Your task to perform on an android device: turn notification dots off Image 0: 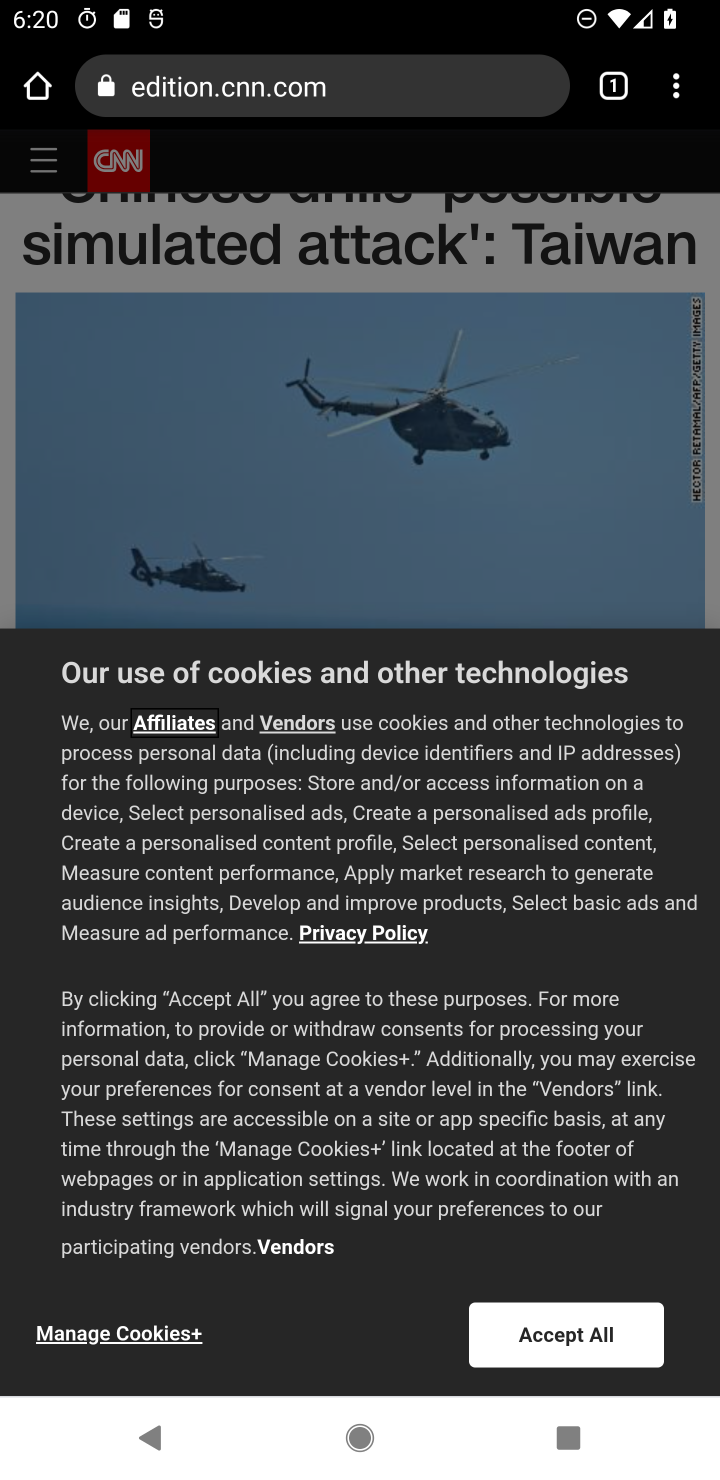
Step 0: press home button
Your task to perform on an android device: turn notification dots off Image 1: 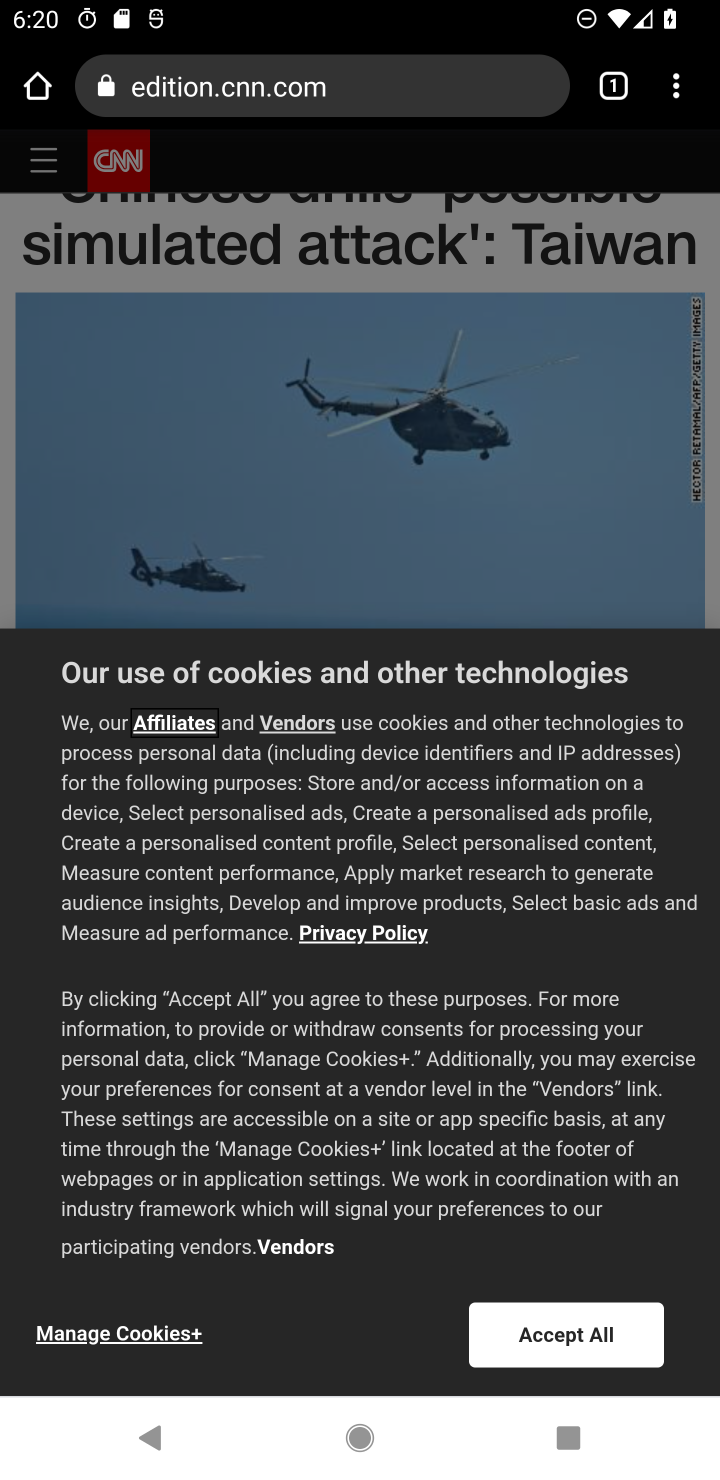
Step 1: drag from (352, 820) to (388, 308)
Your task to perform on an android device: turn notification dots off Image 2: 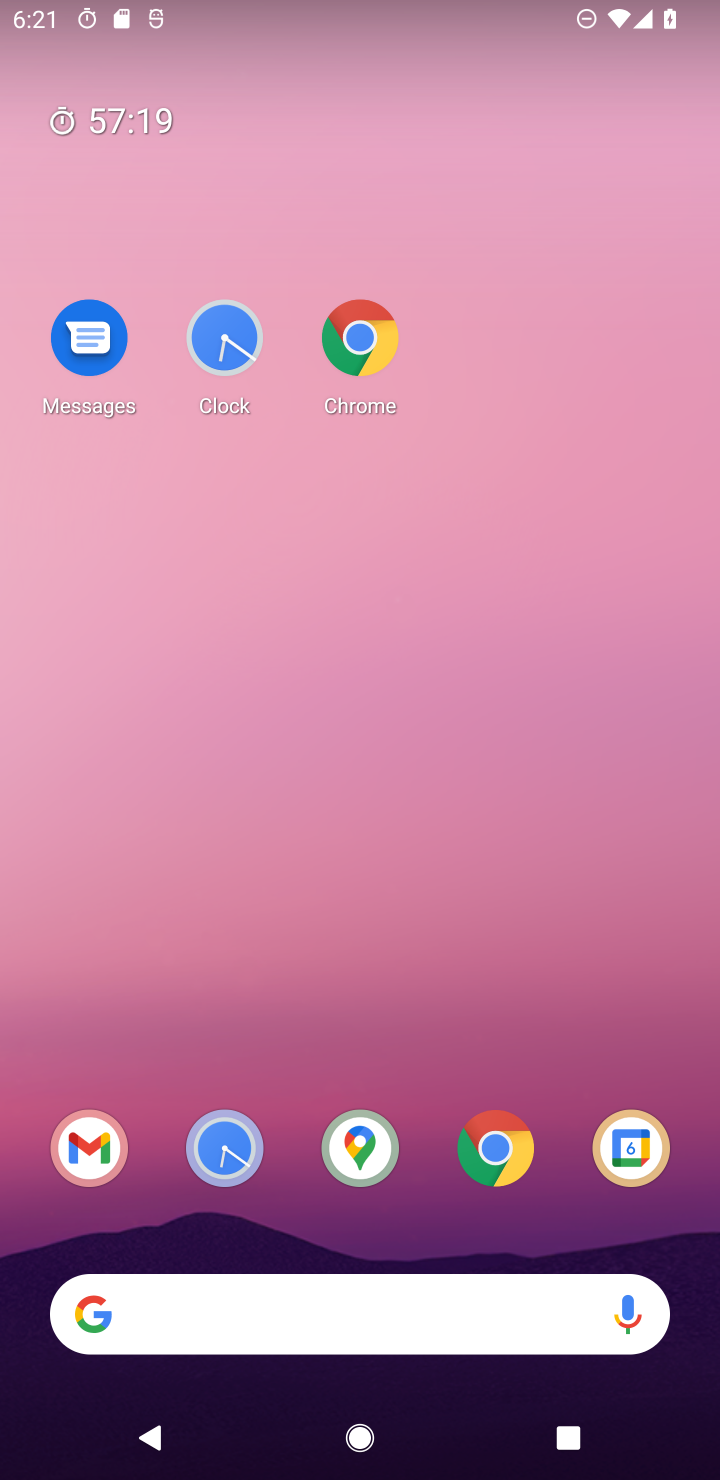
Step 2: drag from (416, 1137) to (504, 170)
Your task to perform on an android device: turn notification dots off Image 3: 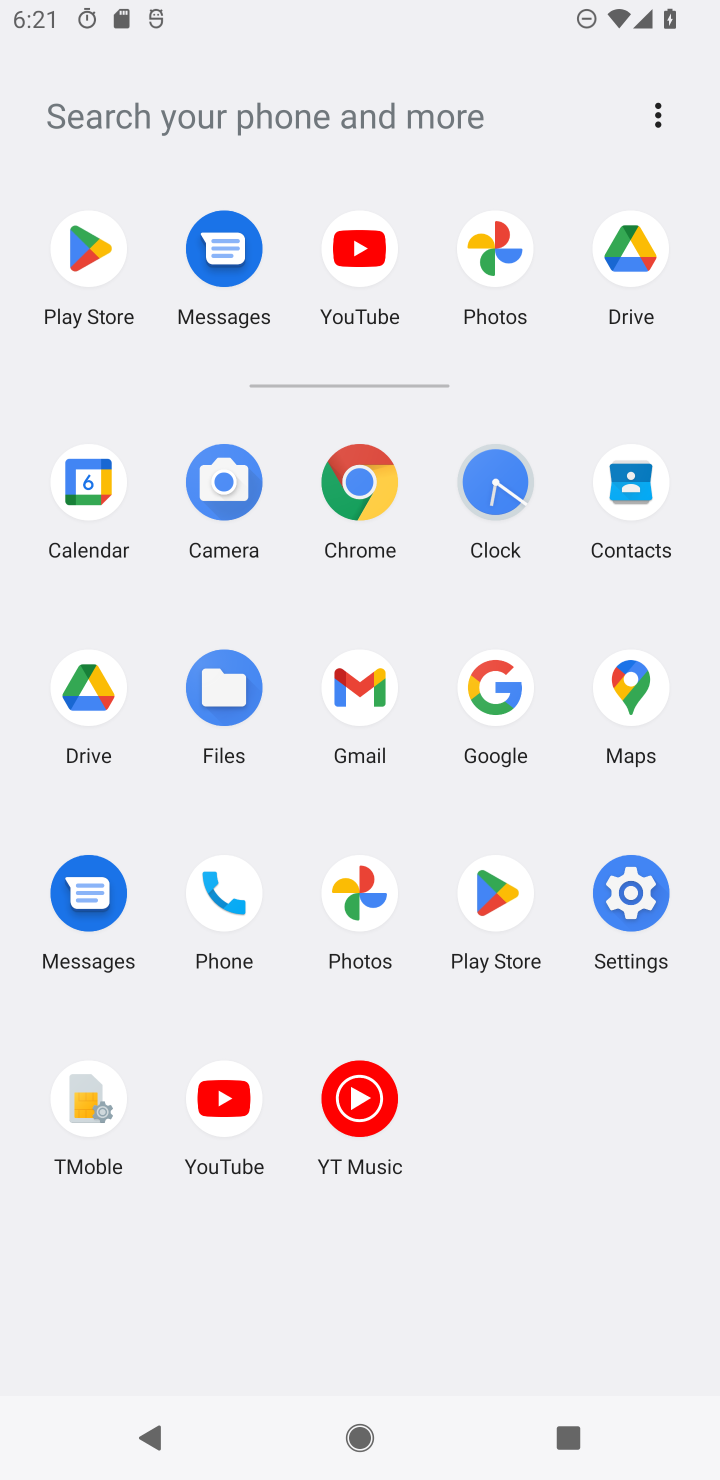
Step 3: click (348, 466)
Your task to perform on an android device: turn notification dots off Image 4: 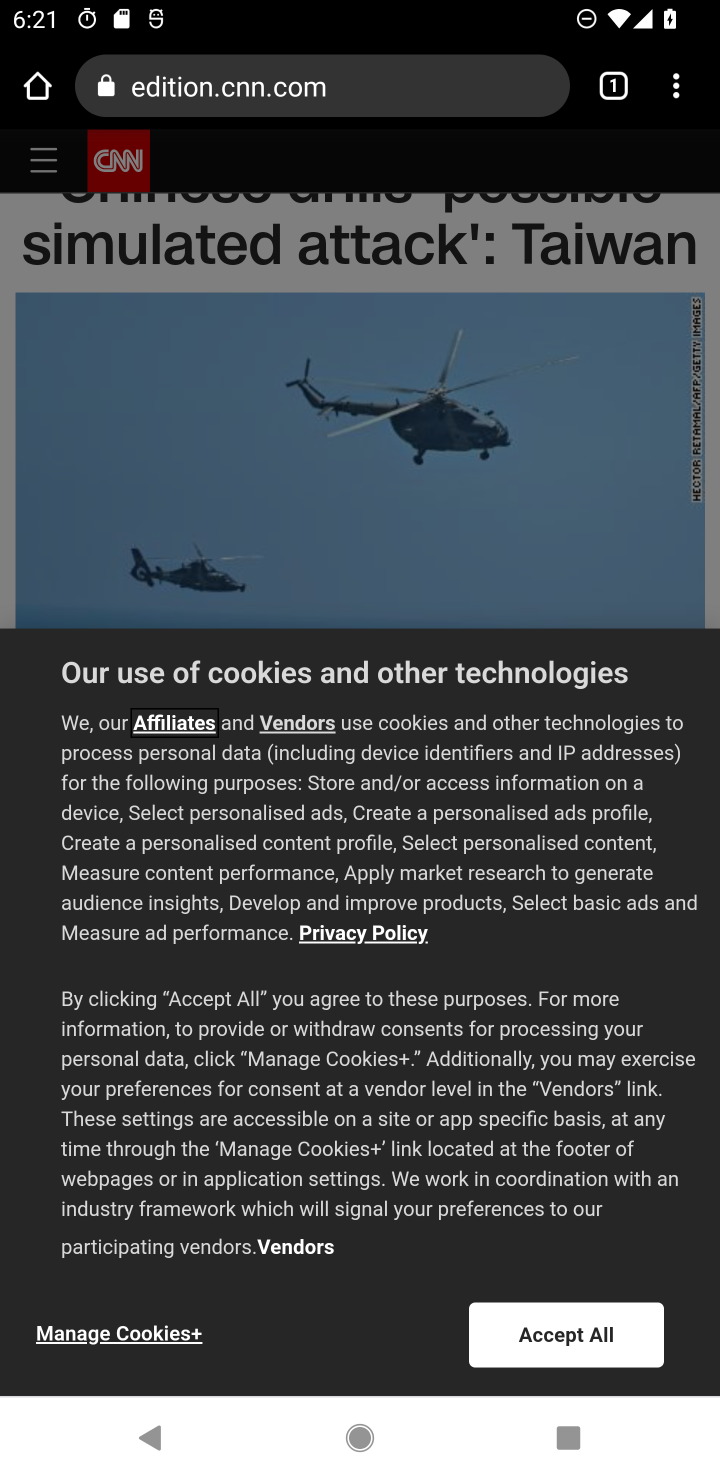
Step 4: drag from (310, 1122) to (446, 602)
Your task to perform on an android device: turn notification dots off Image 5: 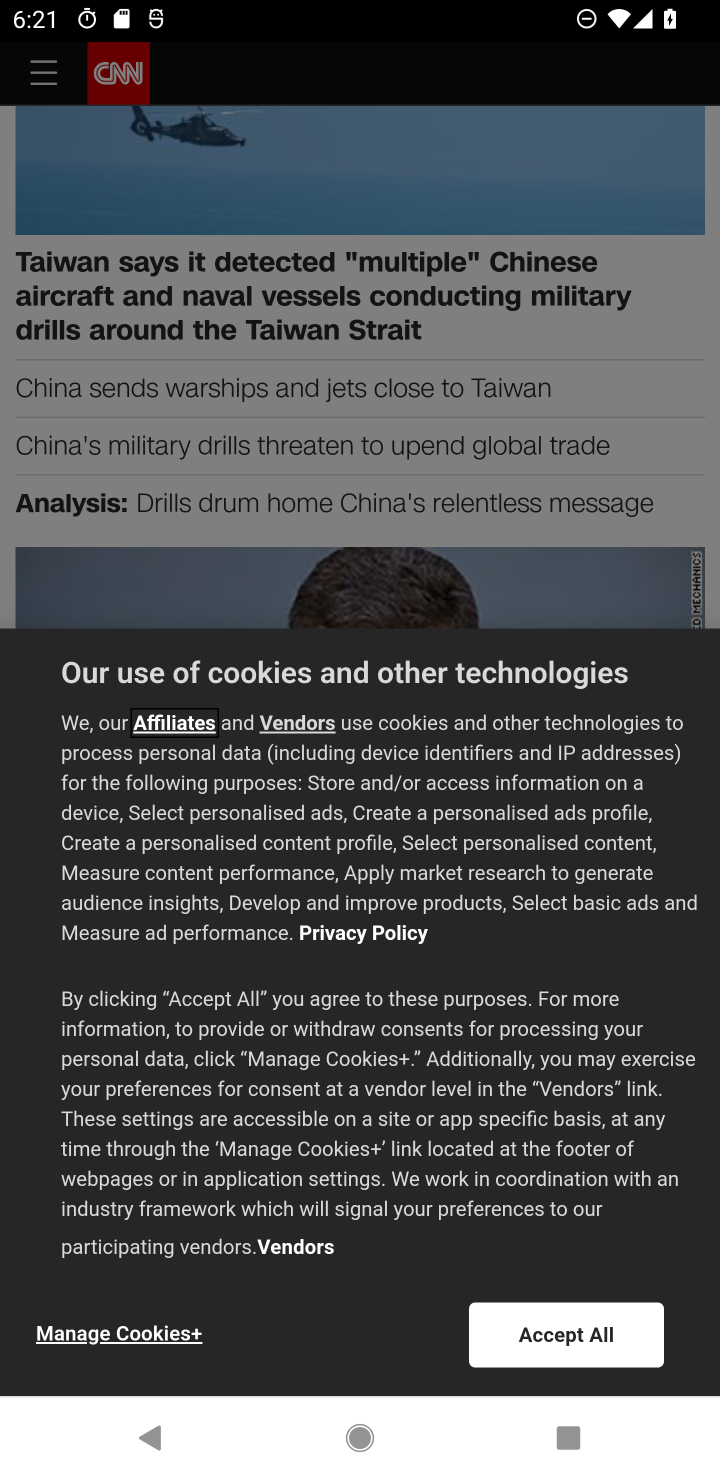
Step 5: drag from (424, 1089) to (450, 918)
Your task to perform on an android device: turn notification dots off Image 6: 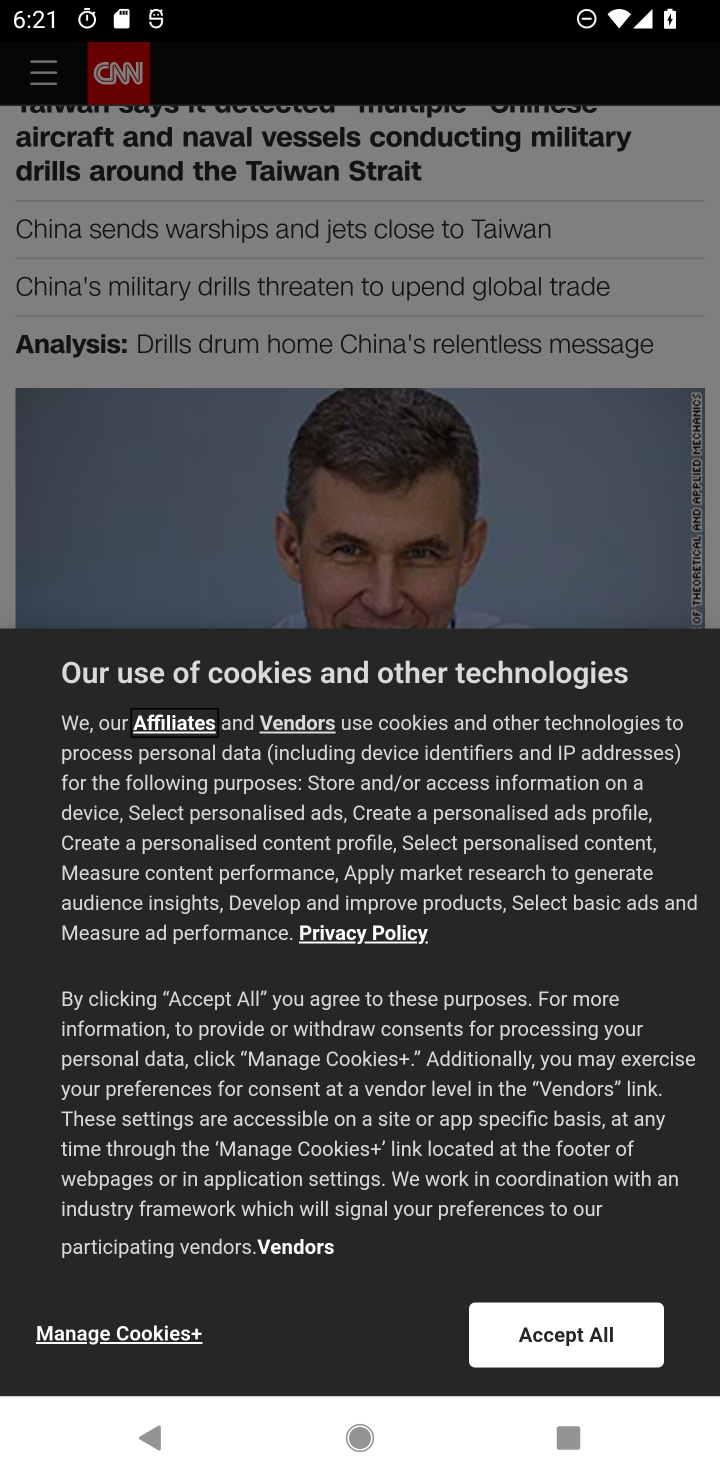
Step 6: drag from (471, 283) to (553, 1472)
Your task to perform on an android device: turn notification dots off Image 7: 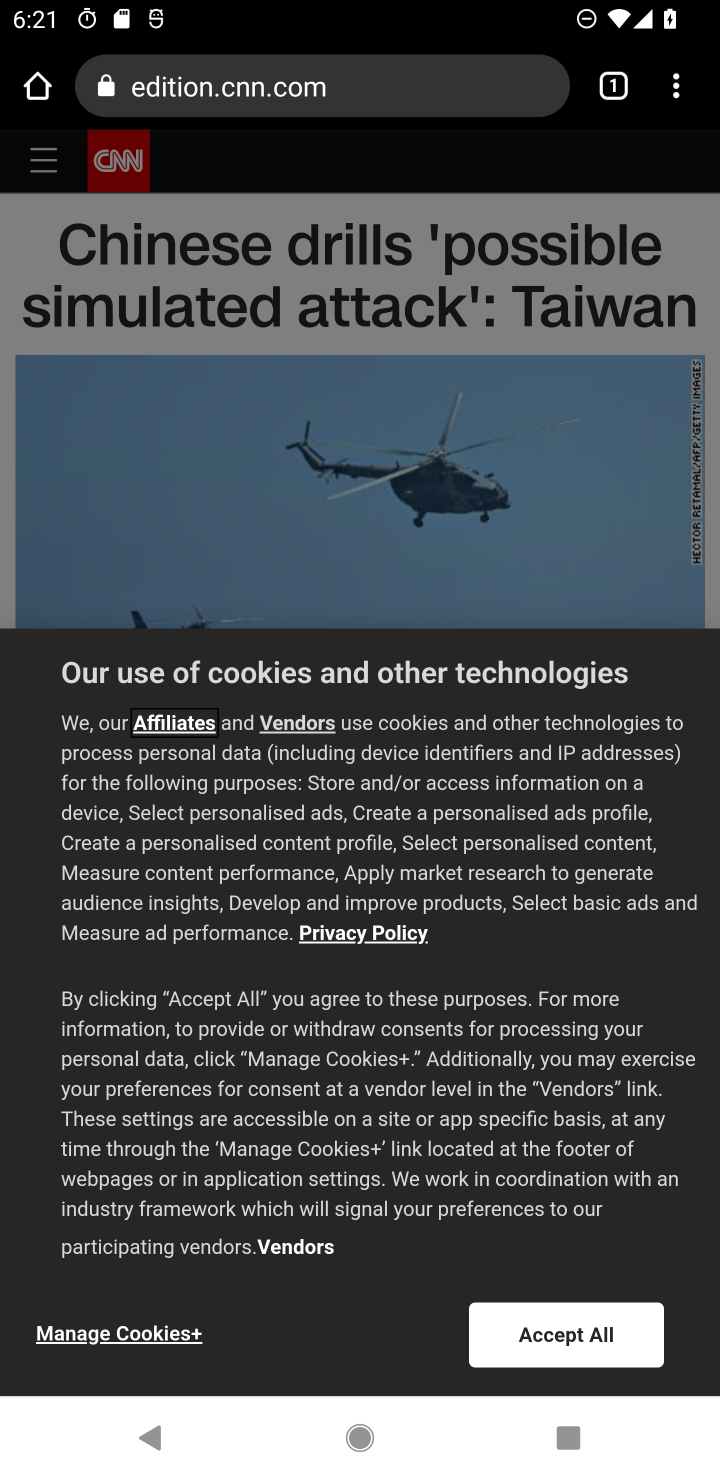
Step 7: drag from (677, 82) to (445, 1154)
Your task to perform on an android device: turn notification dots off Image 8: 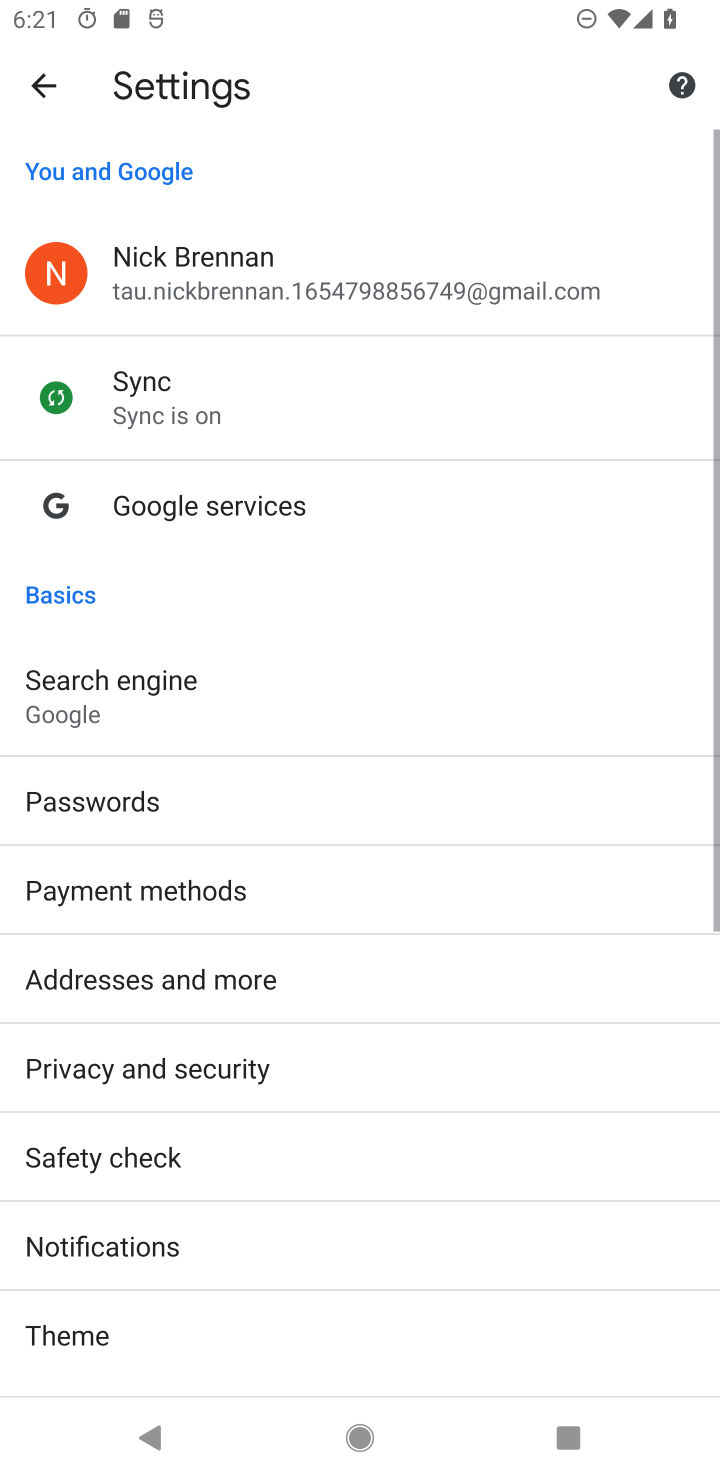
Step 8: press home button
Your task to perform on an android device: turn notification dots off Image 9: 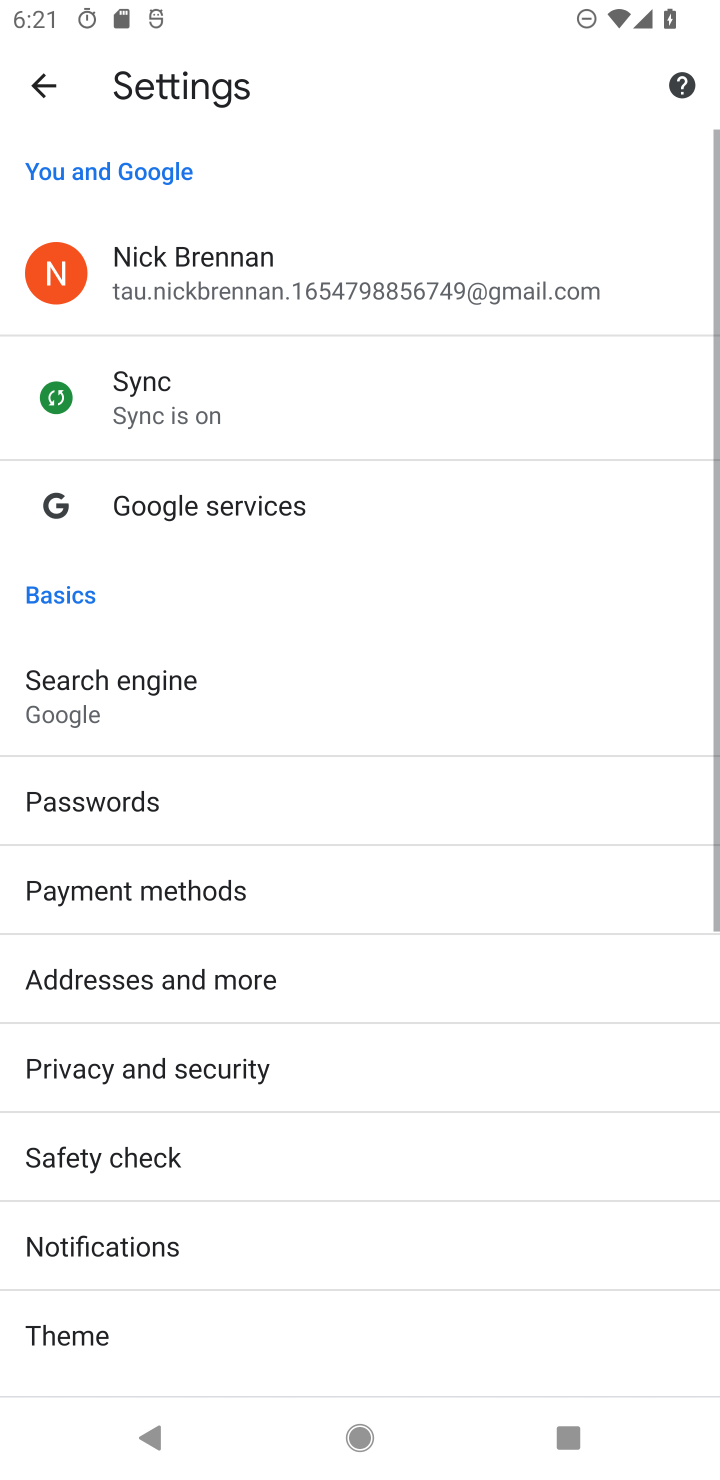
Step 9: press home button
Your task to perform on an android device: turn notification dots off Image 10: 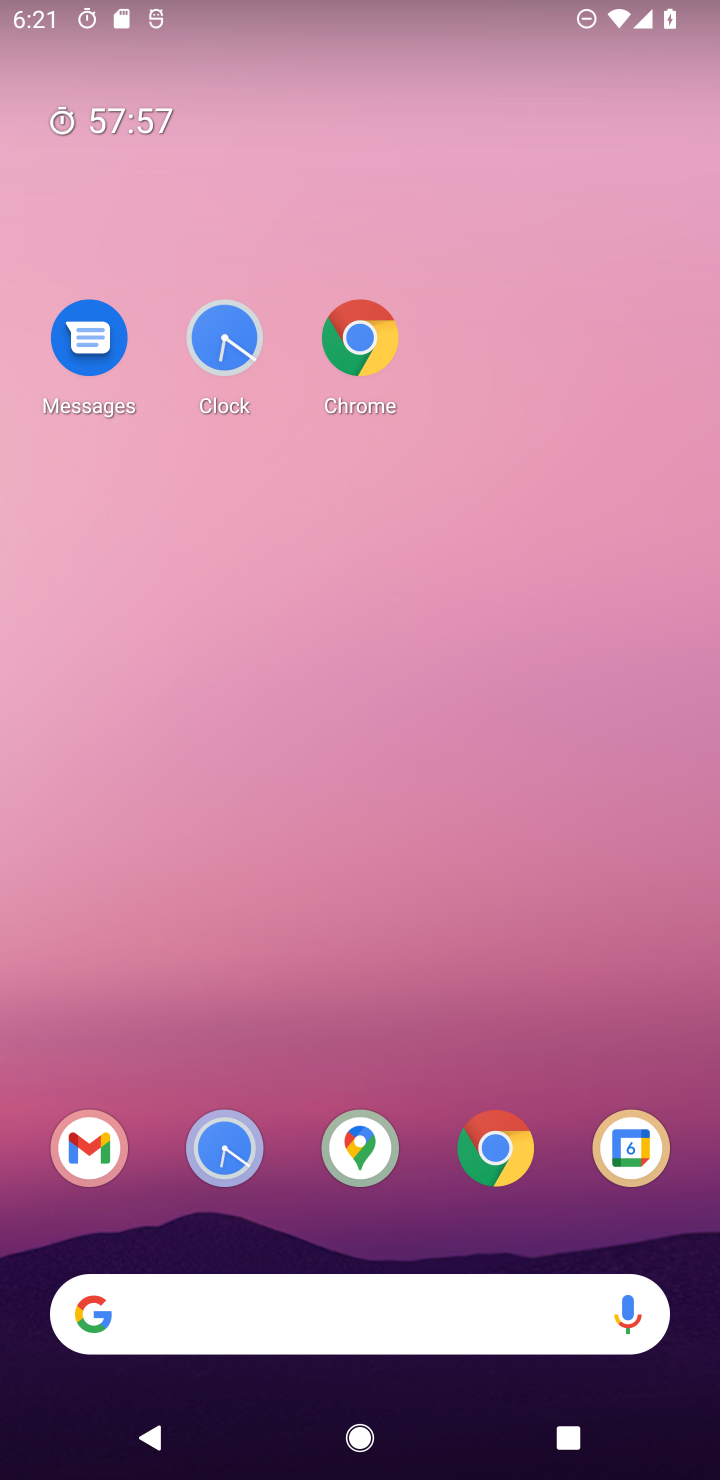
Step 10: drag from (353, 1228) to (190, 122)
Your task to perform on an android device: turn notification dots off Image 11: 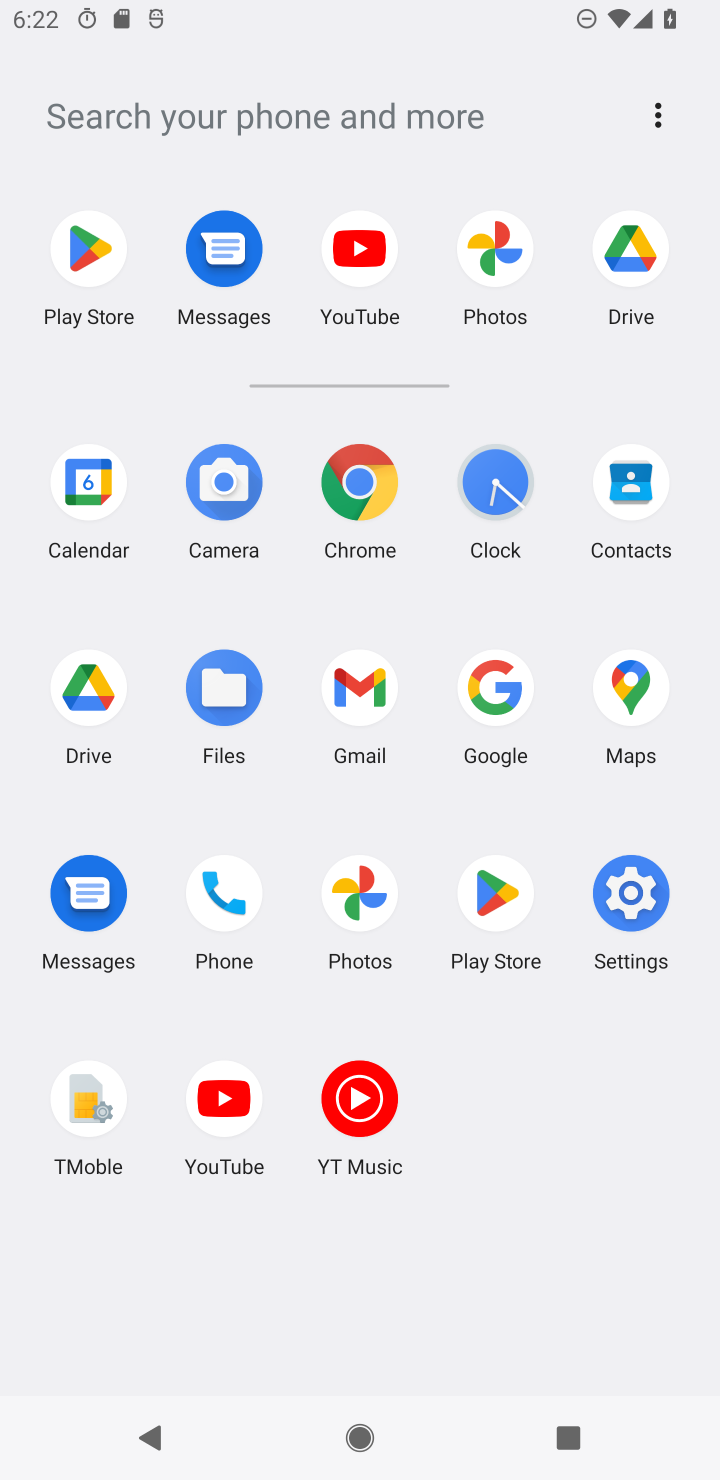
Step 11: click (599, 900)
Your task to perform on an android device: turn notification dots off Image 12: 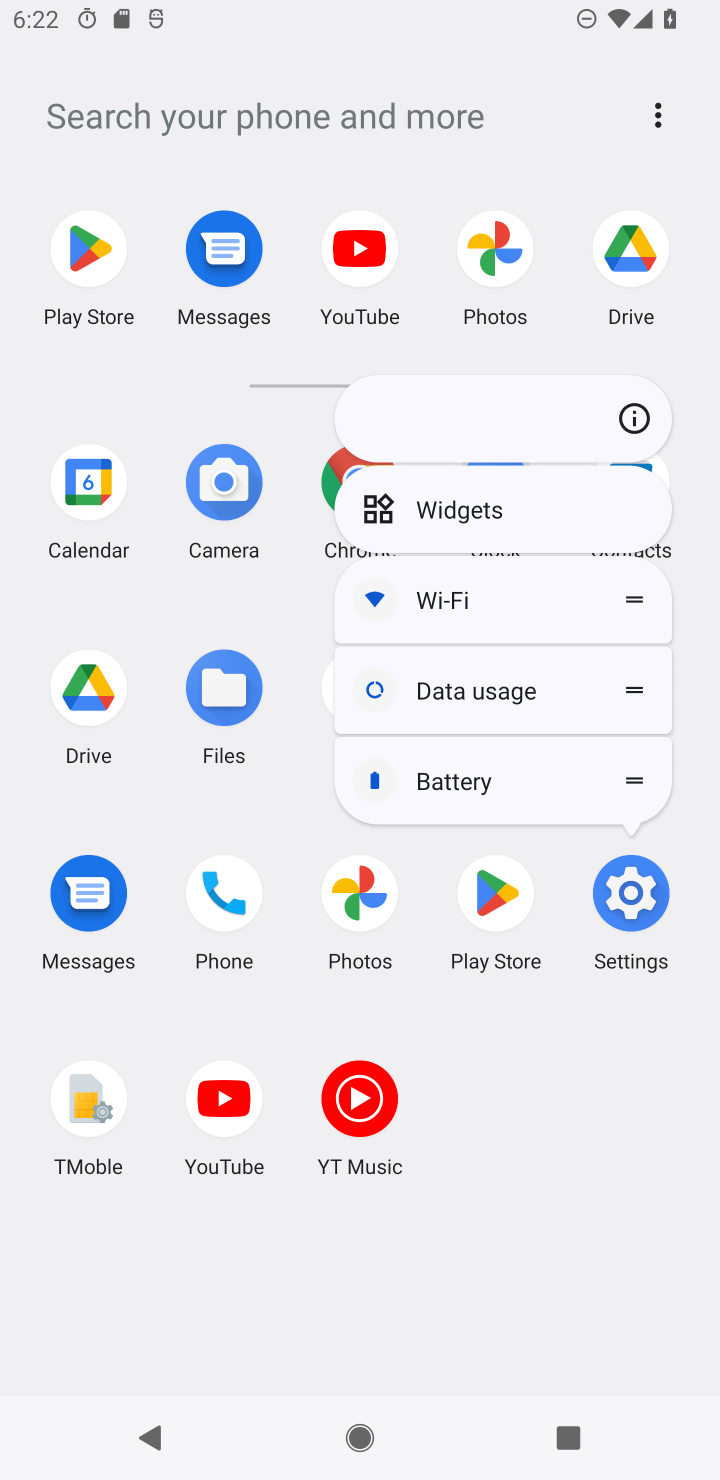
Step 12: click (627, 868)
Your task to perform on an android device: turn notification dots off Image 13: 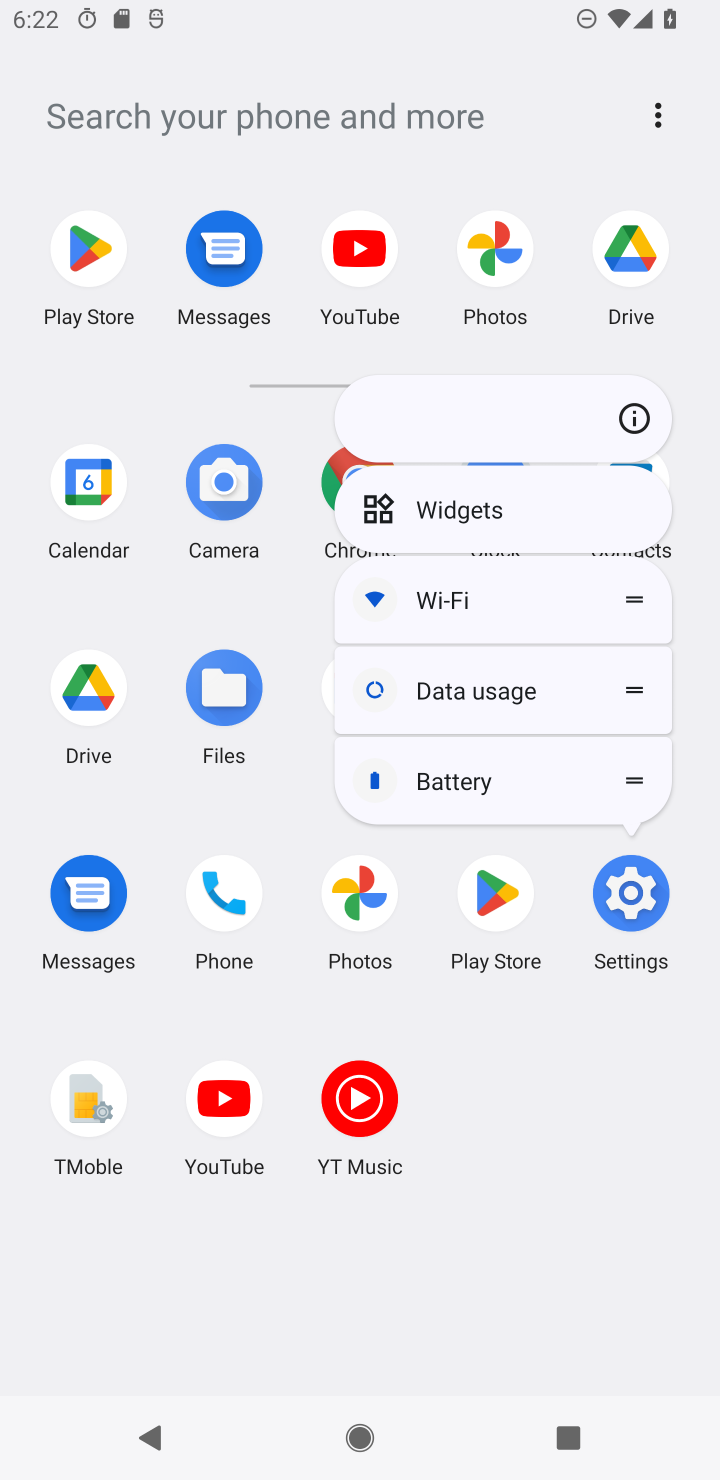
Step 13: click (627, 868)
Your task to perform on an android device: turn notification dots off Image 14: 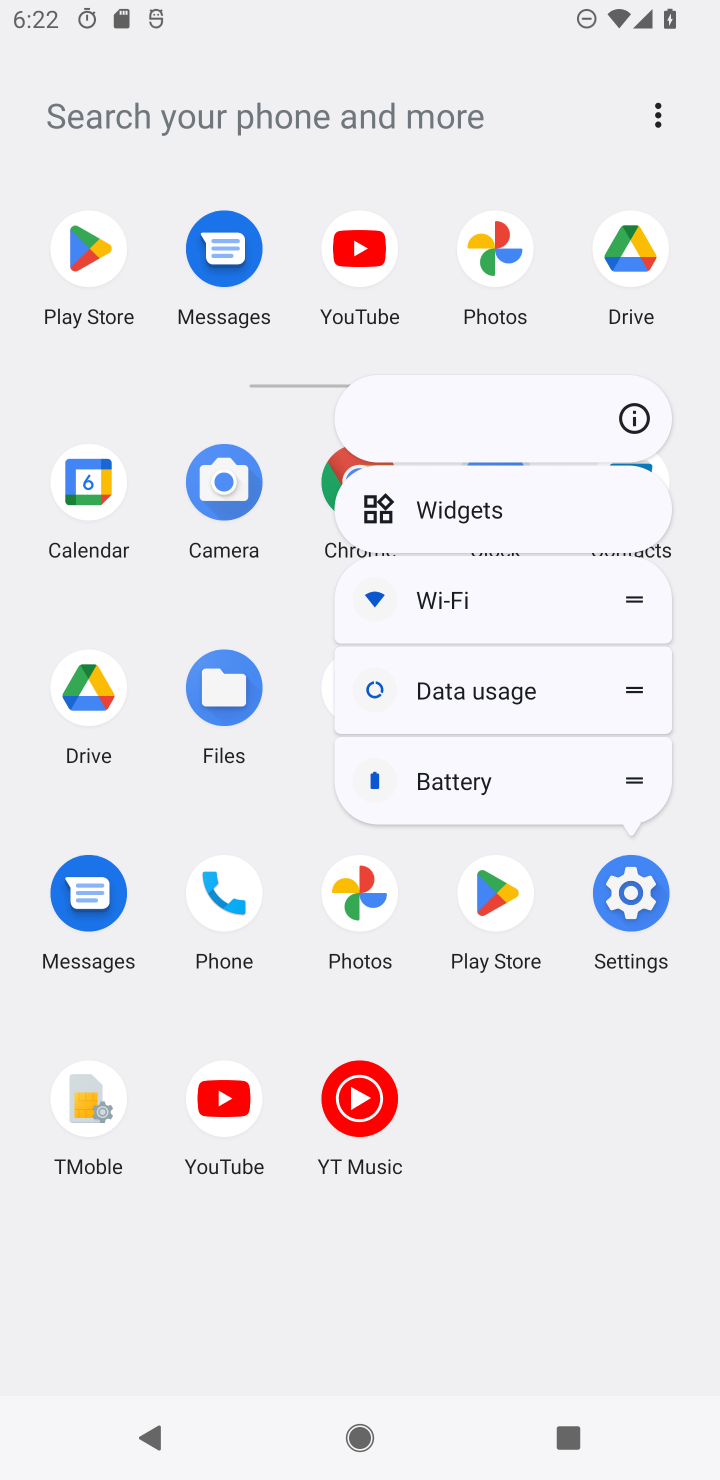
Step 14: click (624, 405)
Your task to perform on an android device: turn notification dots off Image 15: 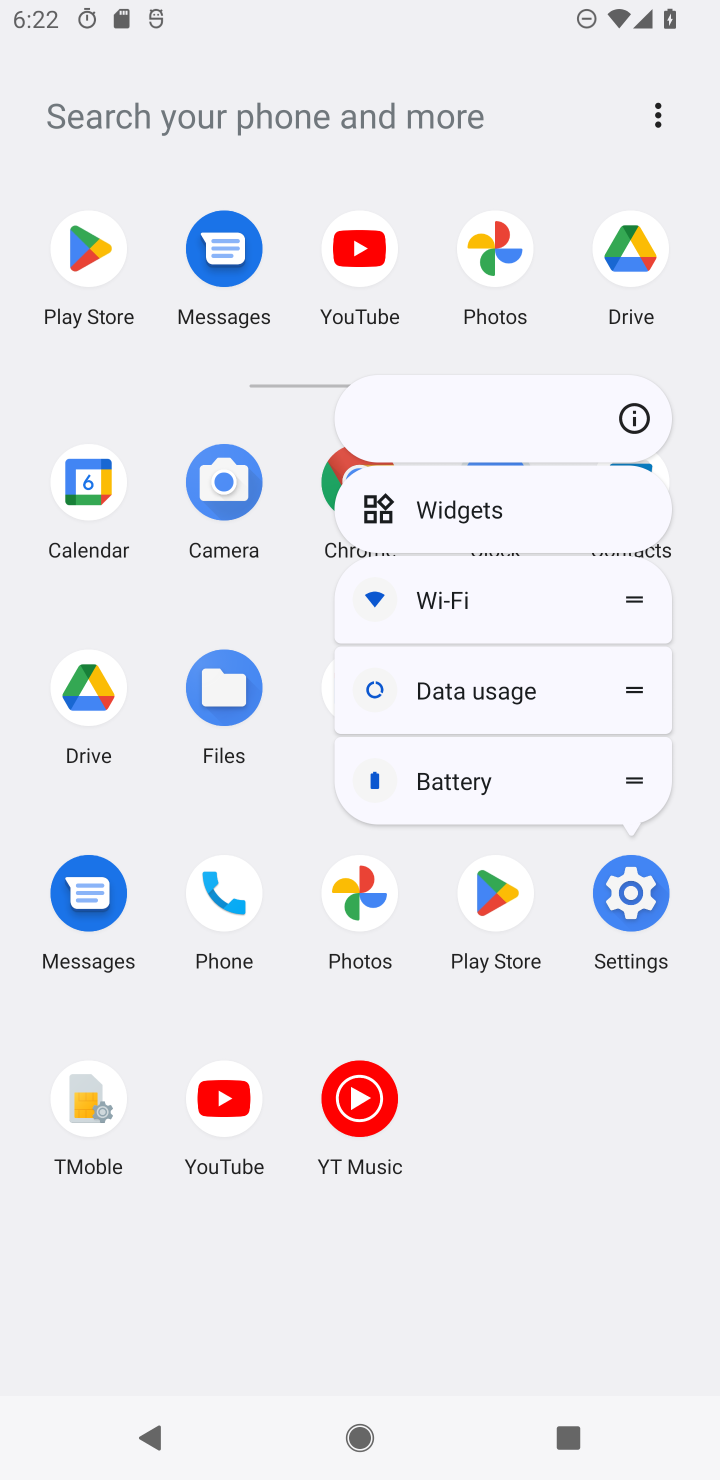
Step 15: click (630, 924)
Your task to perform on an android device: turn notification dots off Image 16: 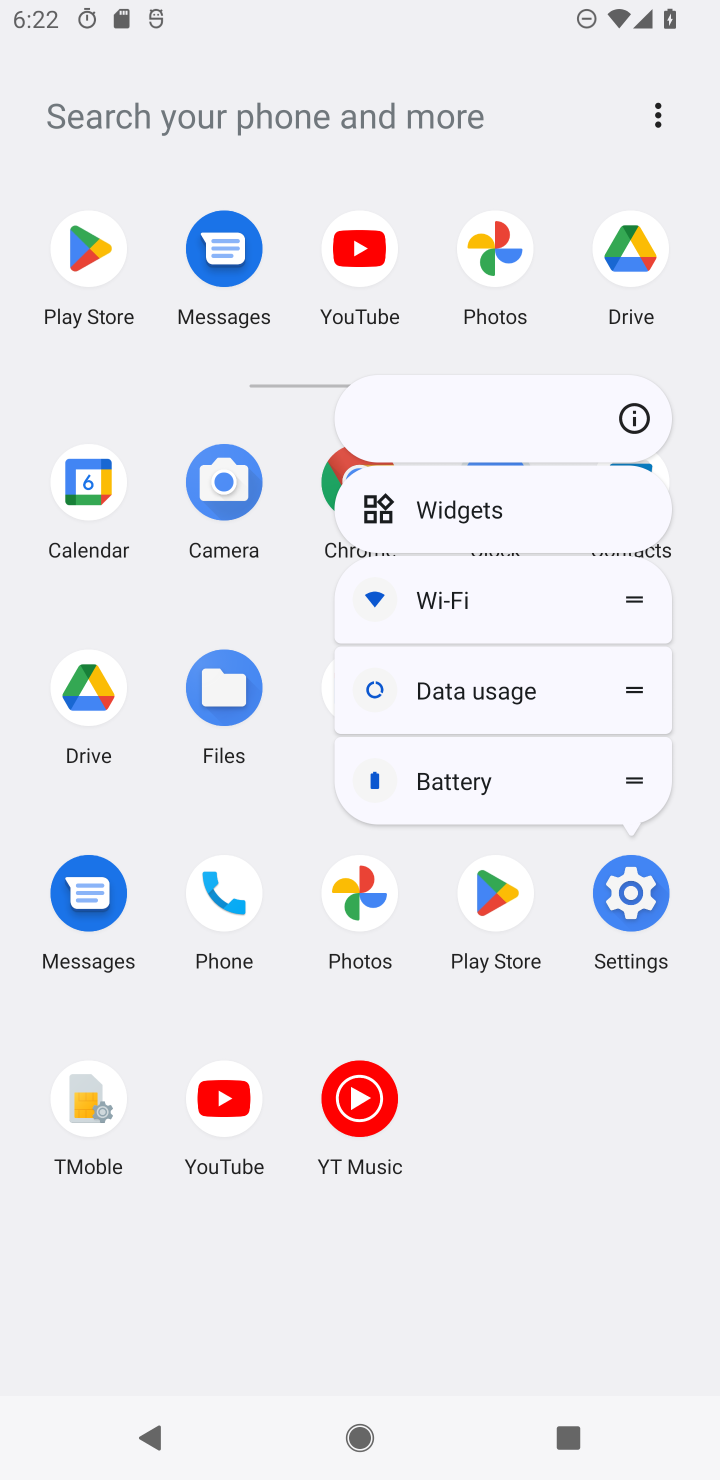
Step 16: click (626, 922)
Your task to perform on an android device: turn notification dots off Image 17: 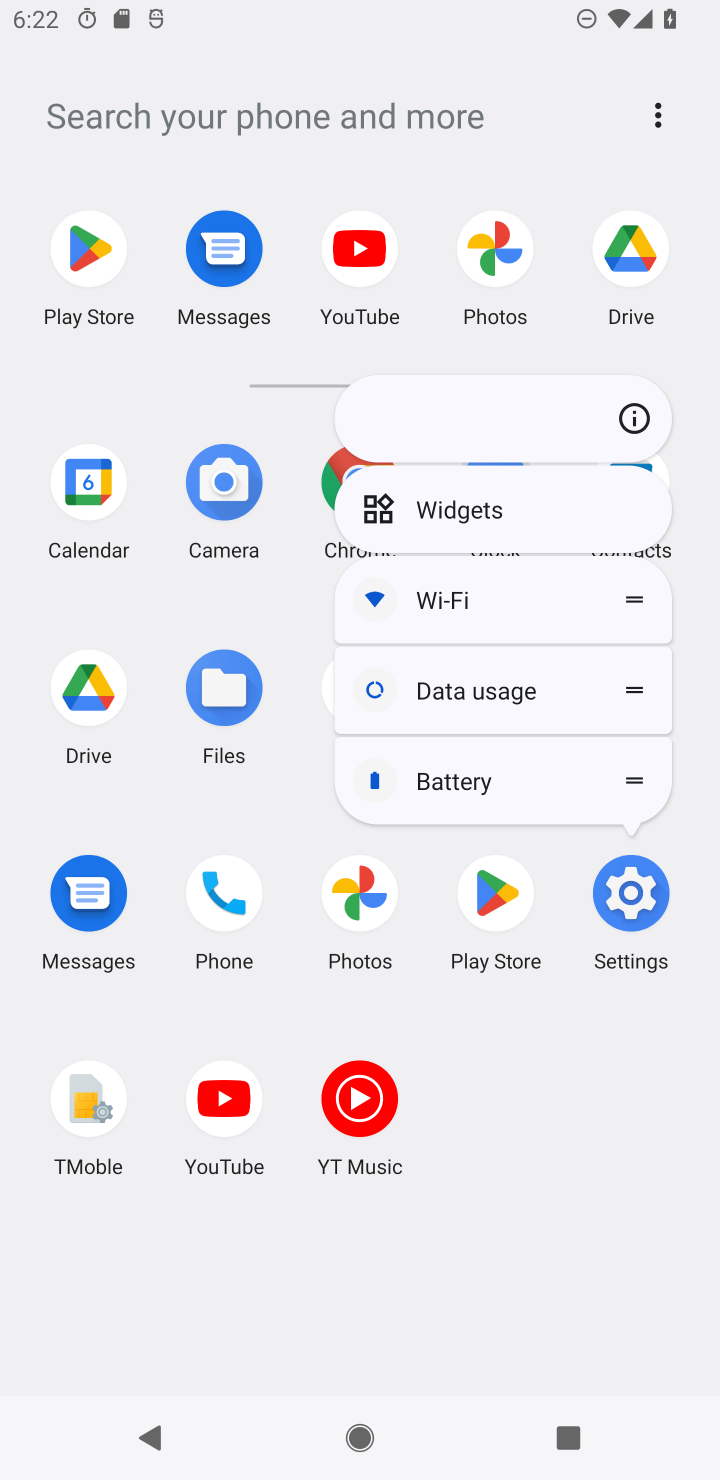
Step 17: click (626, 897)
Your task to perform on an android device: turn notification dots off Image 18: 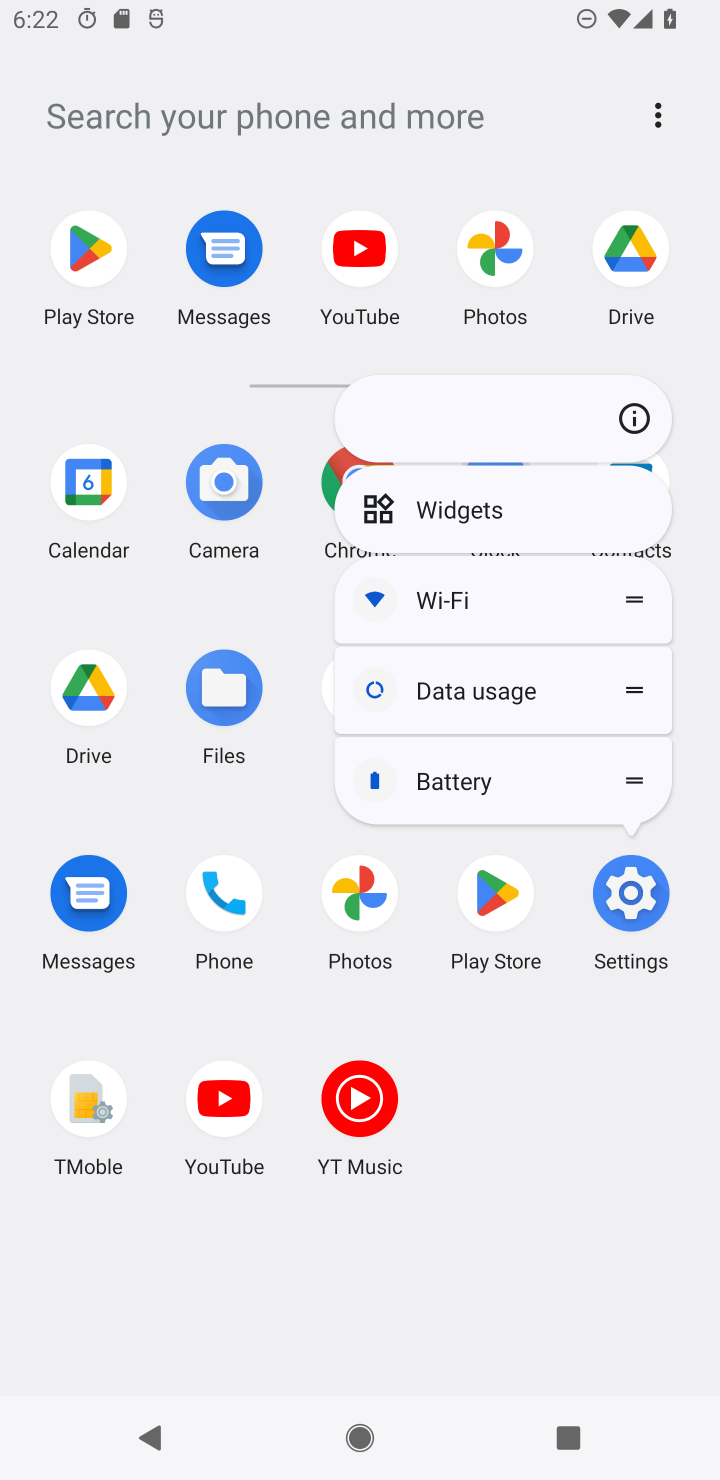
Step 18: click (626, 892)
Your task to perform on an android device: turn notification dots off Image 19: 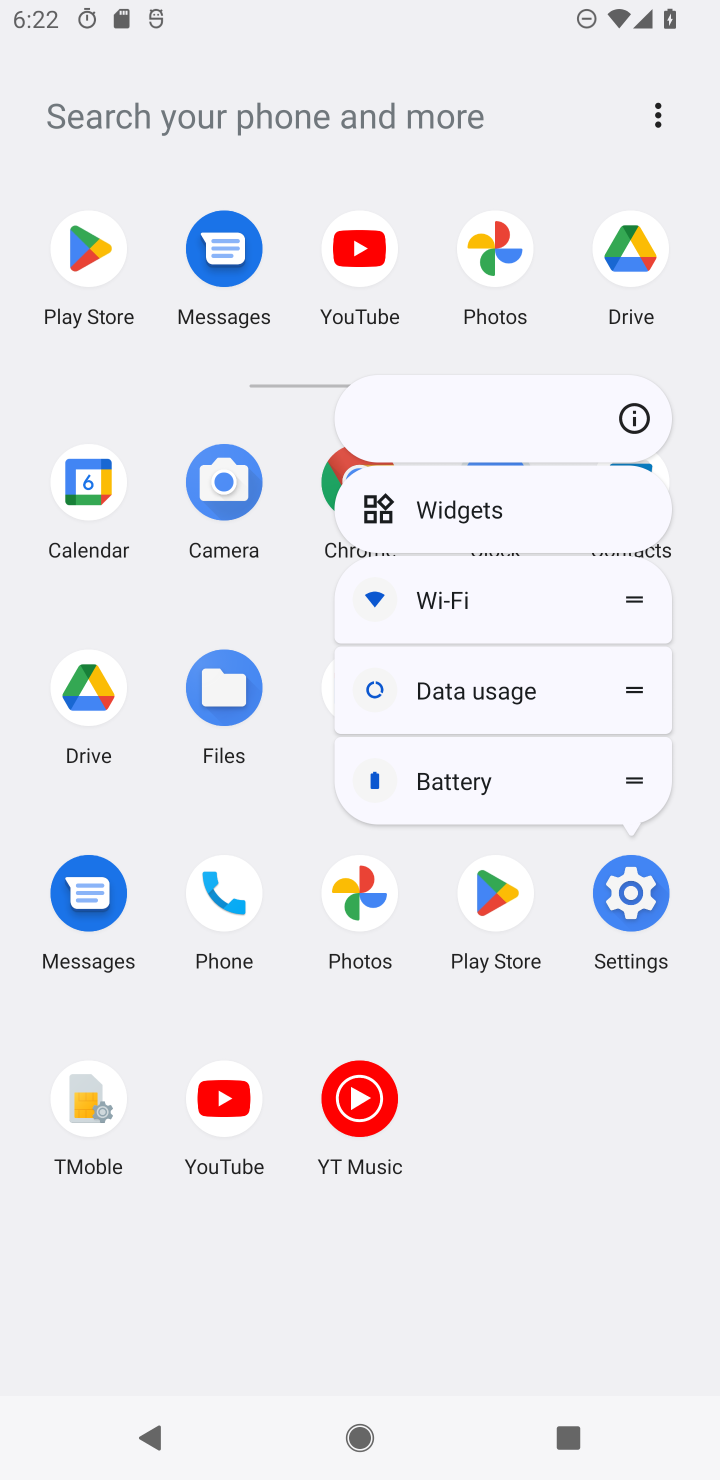
Step 19: click (628, 886)
Your task to perform on an android device: turn notification dots off Image 20: 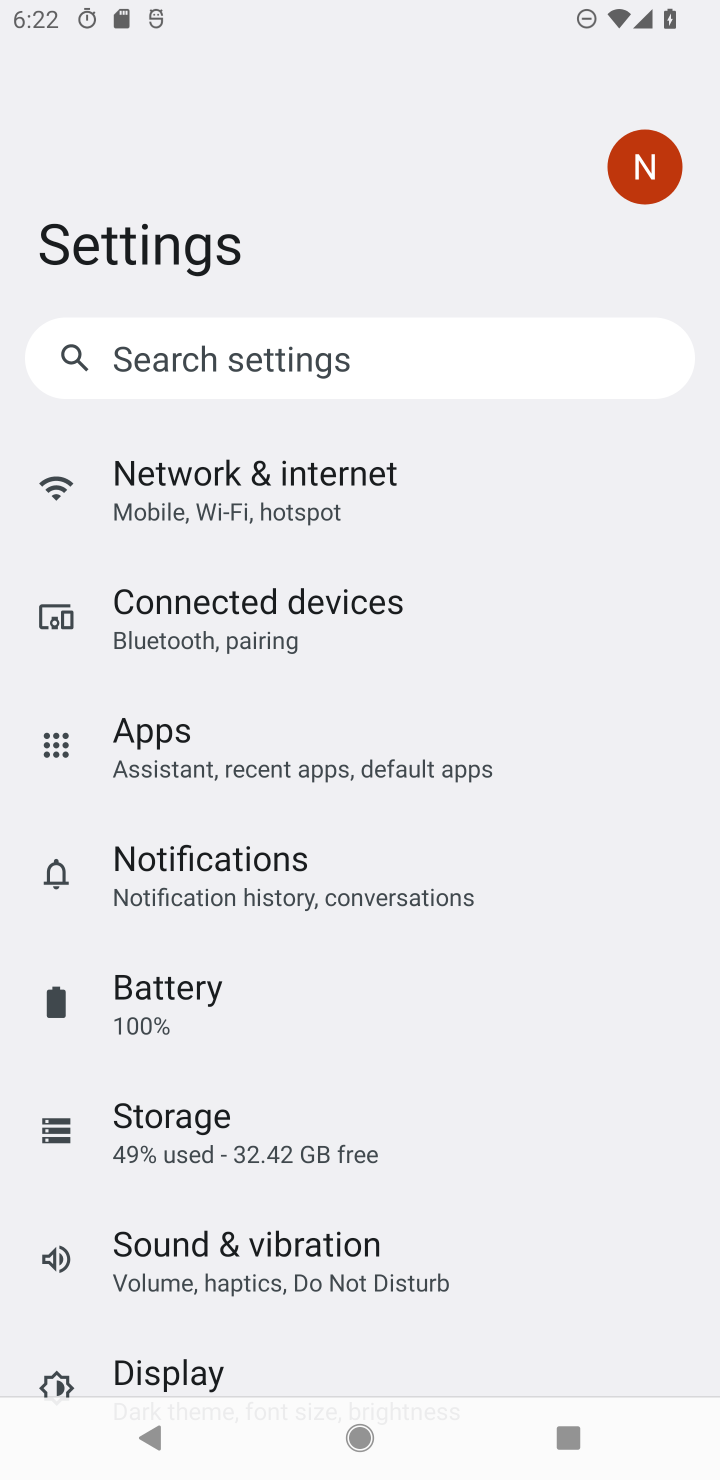
Step 20: drag from (356, 1275) to (513, 690)
Your task to perform on an android device: turn notification dots off Image 21: 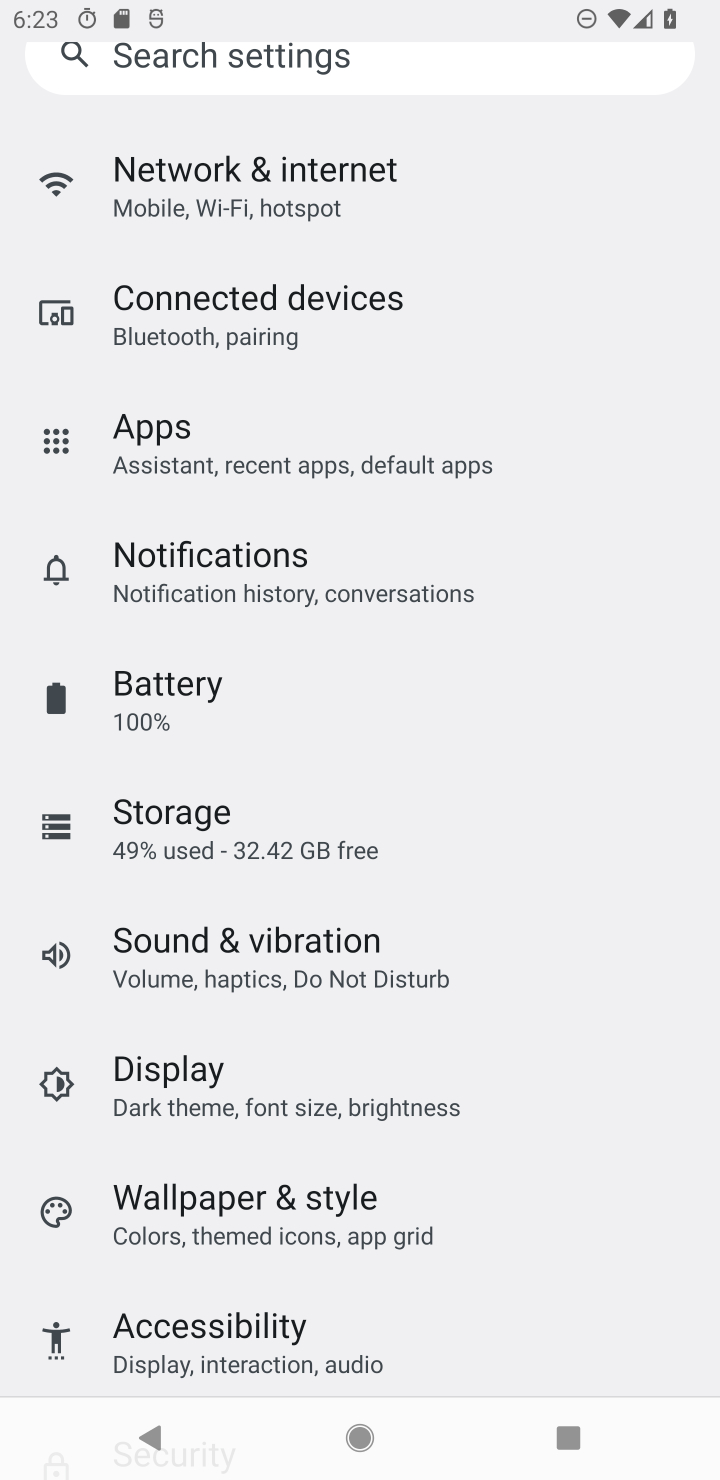
Step 21: click (297, 580)
Your task to perform on an android device: turn notification dots off Image 22: 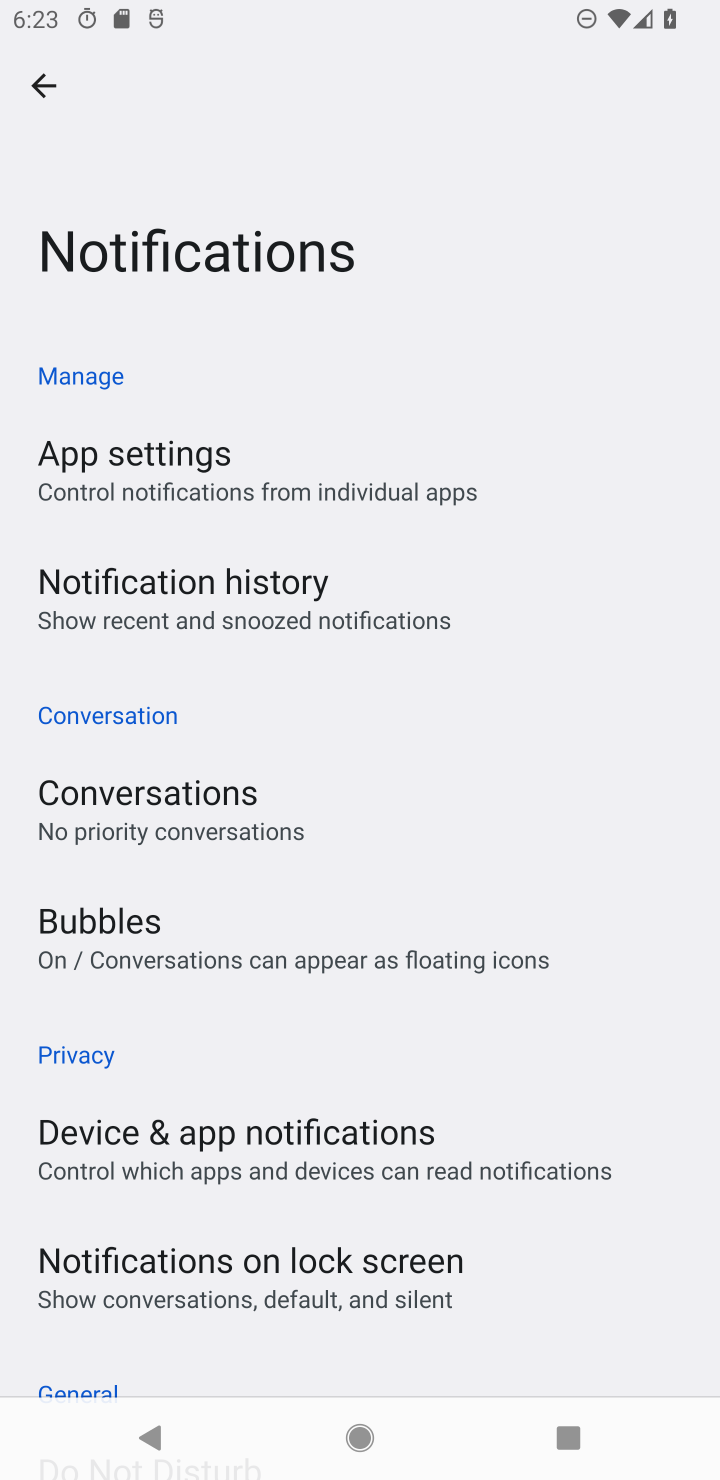
Step 22: drag from (300, 1166) to (392, 483)
Your task to perform on an android device: turn notification dots off Image 23: 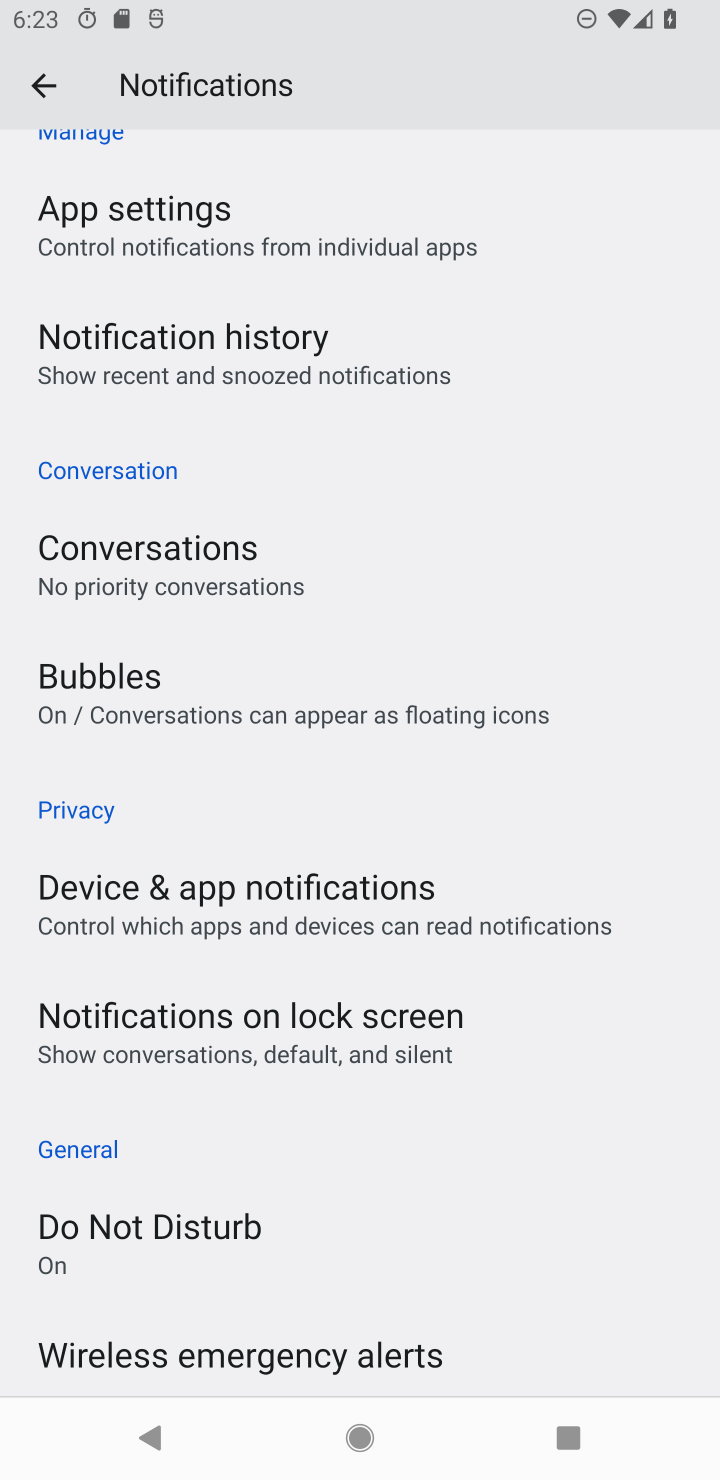
Step 23: drag from (317, 1173) to (348, 253)
Your task to perform on an android device: turn notification dots off Image 24: 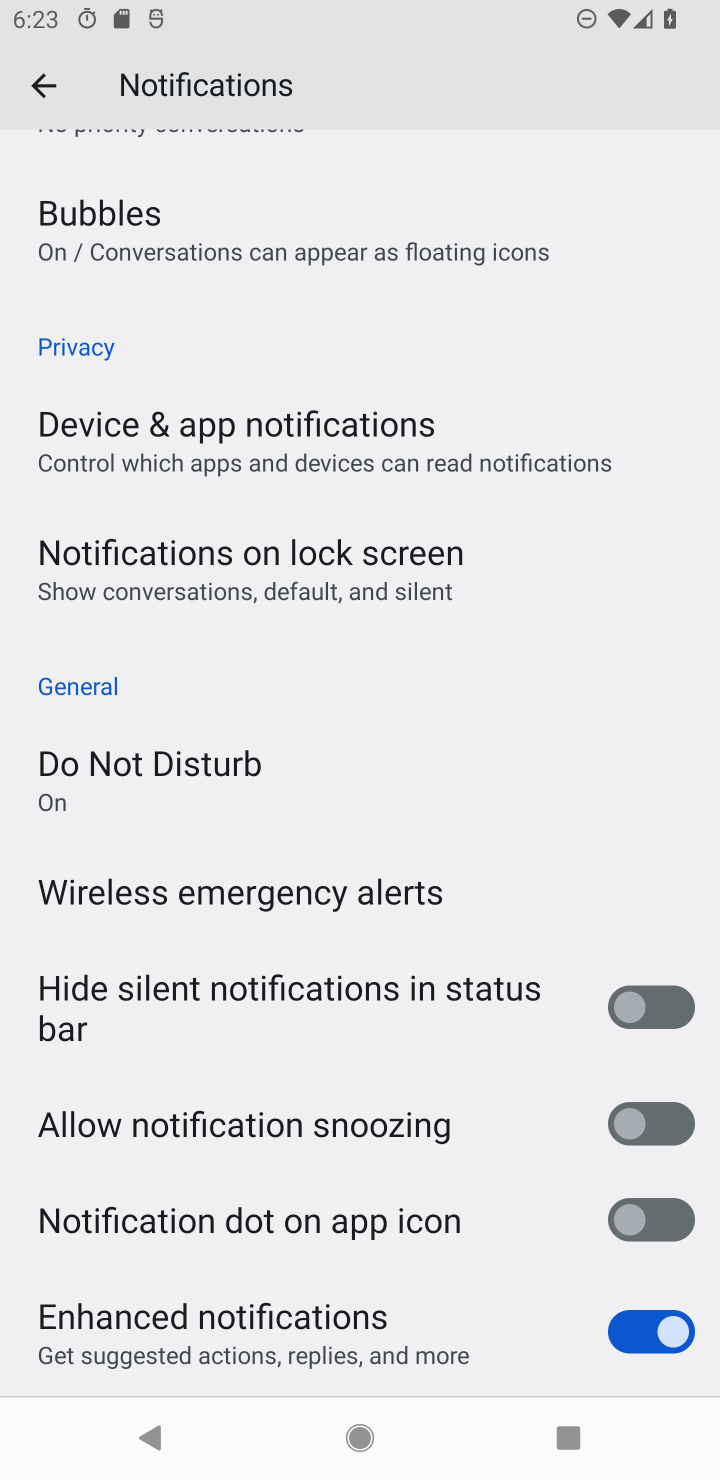
Step 24: click (650, 1200)
Your task to perform on an android device: turn notification dots off Image 25: 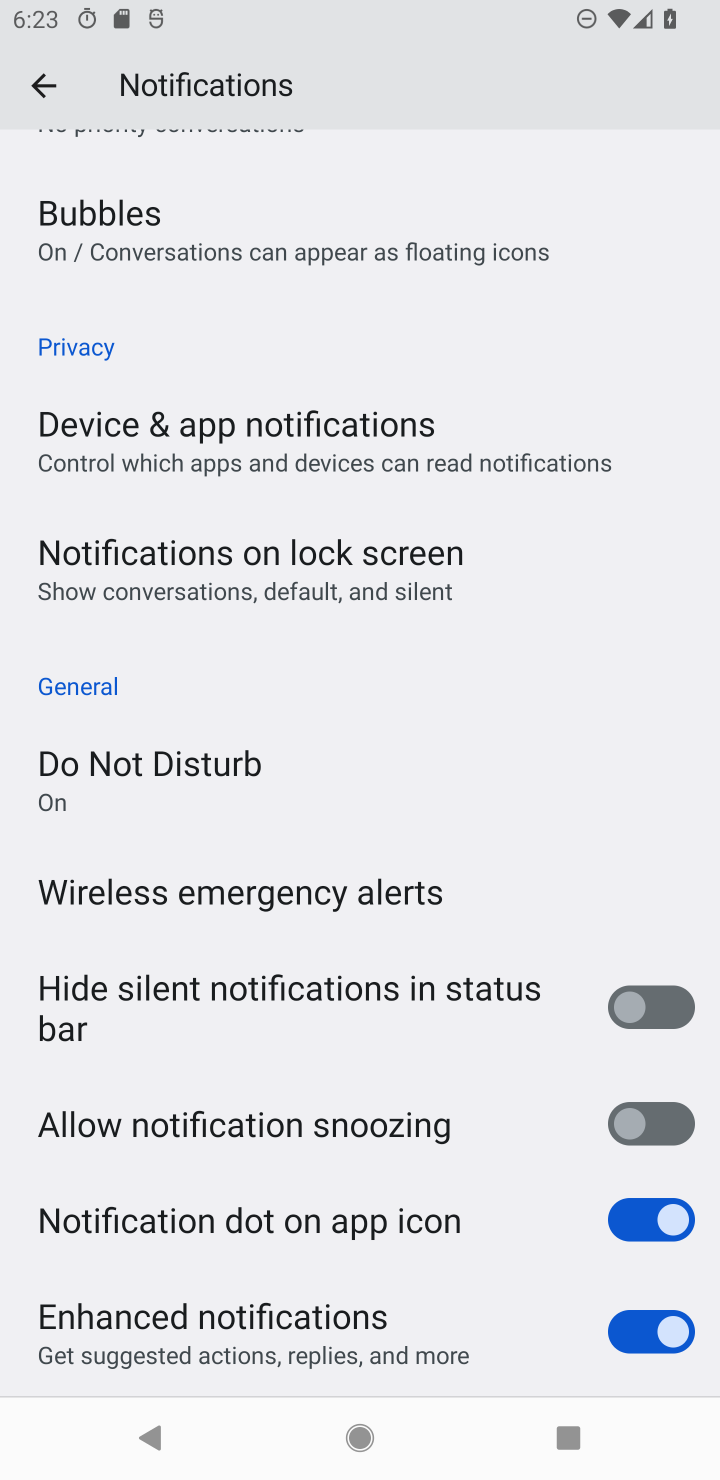
Step 25: task complete